Your task to perform on an android device: Open Google Maps and go to "Timeline" Image 0: 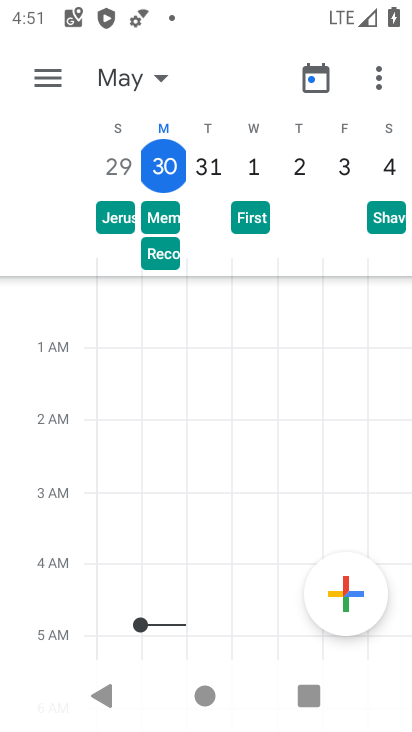
Step 0: press home button
Your task to perform on an android device: Open Google Maps and go to "Timeline" Image 1: 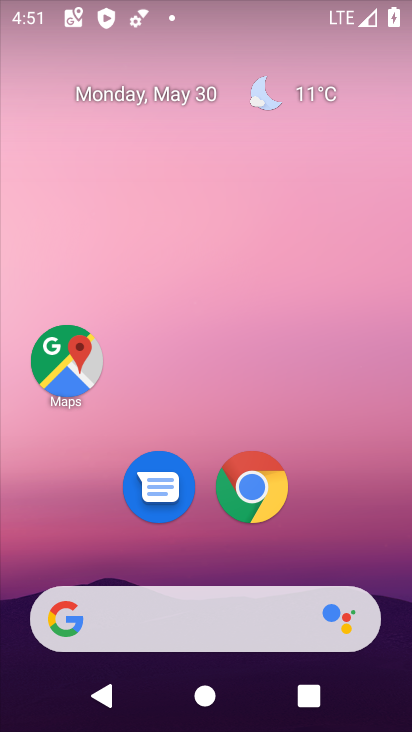
Step 1: click (69, 358)
Your task to perform on an android device: Open Google Maps and go to "Timeline" Image 2: 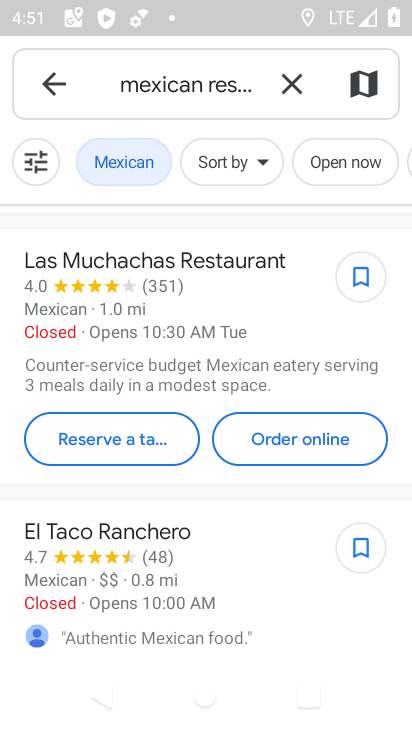
Step 2: click (288, 78)
Your task to perform on an android device: Open Google Maps and go to "Timeline" Image 3: 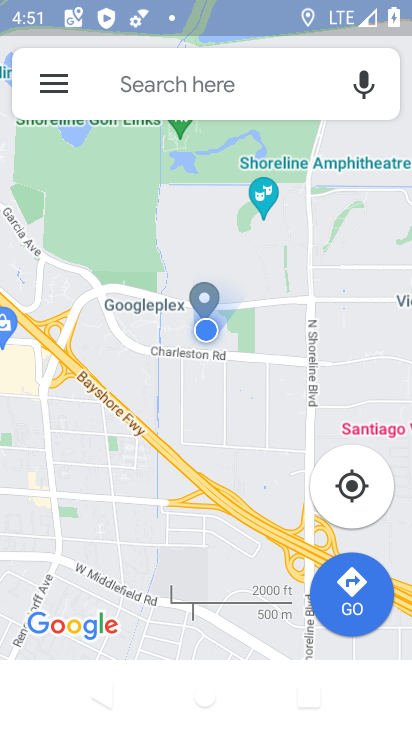
Step 3: click (53, 91)
Your task to perform on an android device: Open Google Maps and go to "Timeline" Image 4: 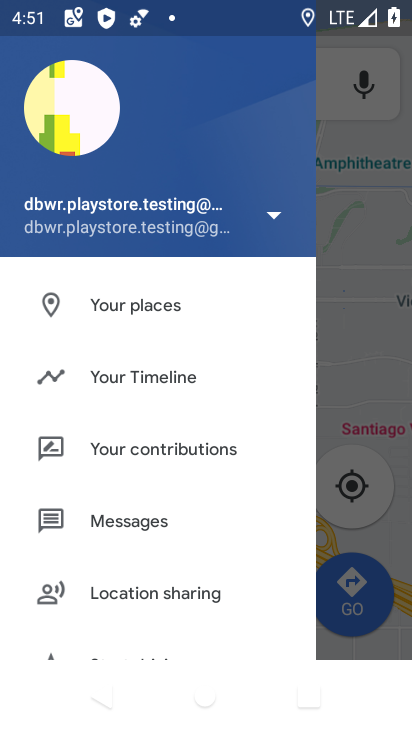
Step 4: click (153, 379)
Your task to perform on an android device: Open Google Maps and go to "Timeline" Image 5: 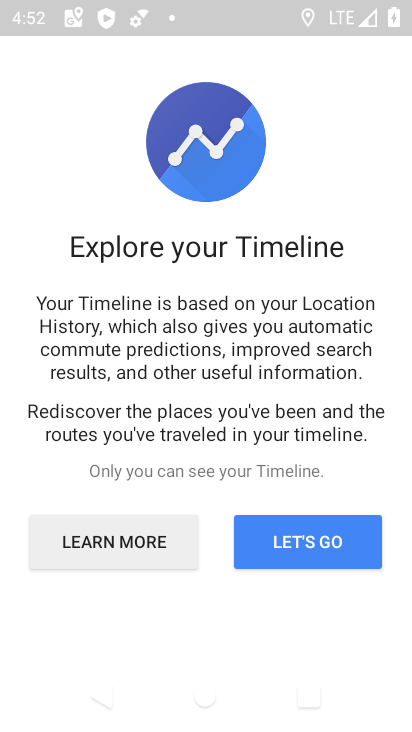
Step 5: task complete